Your task to perform on an android device: View the shopping cart on target.com. Add bose quietcomfort 35 to the cart on target.com, then select checkout. Image 0: 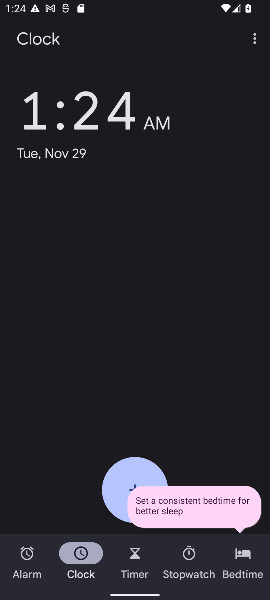
Step 0: press home button
Your task to perform on an android device: View the shopping cart on target.com. Add bose quietcomfort 35 to the cart on target.com, then select checkout. Image 1: 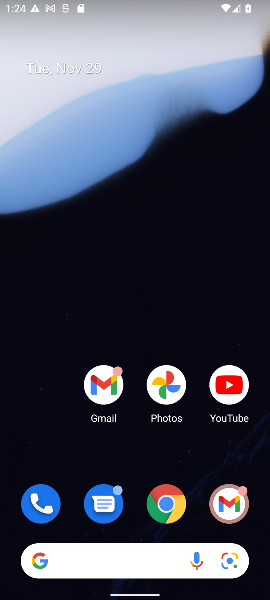
Step 1: click (167, 510)
Your task to perform on an android device: View the shopping cart on target.com. Add bose quietcomfort 35 to the cart on target.com, then select checkout. Image 2: 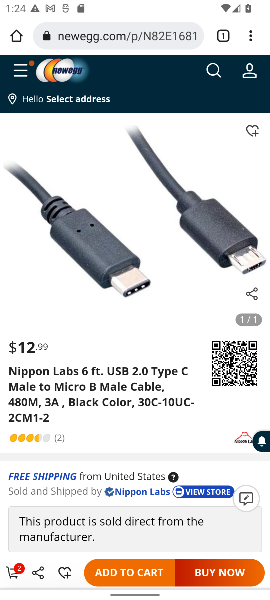
Step 2: click (103, 39)
Your task to perform on an android device: View the shopping cart on target.com. Add bose quietcomfort 35 to the cart on target.com, then select checkout. Image 3: 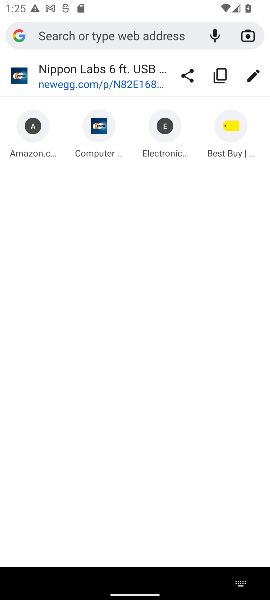
Step 3: type "target.com"
Your task to perform on an android device: View the shopping cart on target.com. Add bose quietcomfort 35 to the cart on target.com, then select checkout. Image 4: 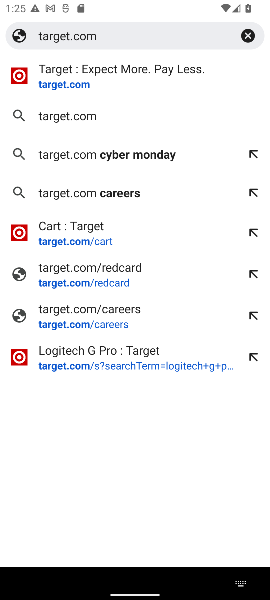
Step 4: click (62, 87)
Your task to perform on an android device: View the shopping cart on target.com. Add bose quietcomfort 35 to the cart on target.com, then select checkout. Image 5: 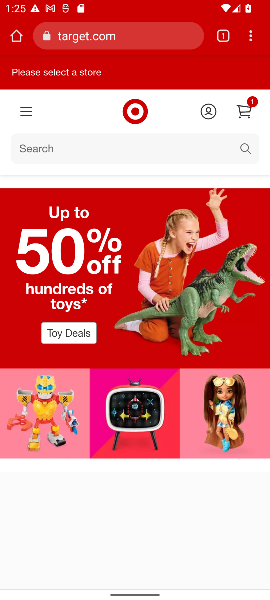
Step 5: click (245, 112)
Your task to perform on an android device: View the shopping cart on target.com. Add bose quietcomfort 35 to the cart on target.com, then select checkout. Image 6: 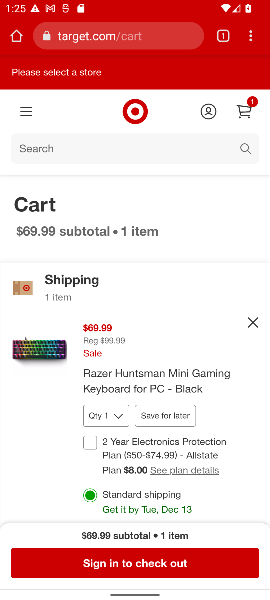
Step 6: click (49, 150)
Your task to perform on an android device: View the shopping cart on target.com. Add bose quietcomfort 35 to the cart on target.com, then select checkout. Image 7: 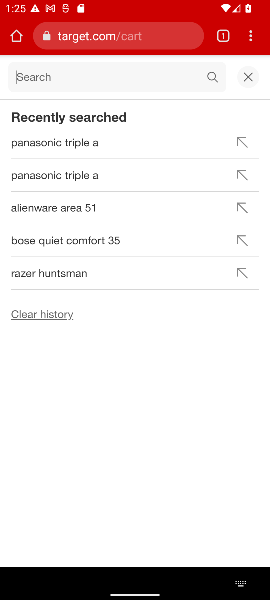
Step 7: type "bose quietcomfort 35"
Your task to perform on an android device: View the shopping cart on target.com. Add bose quietcomfort 35 to the cart on target.com, then select checkout. Image 8: 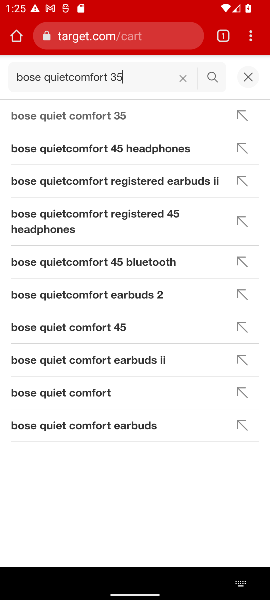
Step 8: click (49, 116)
Your task to perform on an android device: View the shopping cart on target.com. Add bose quietcomfort 35 to the cart on target.com, then select checkout. Image 9: 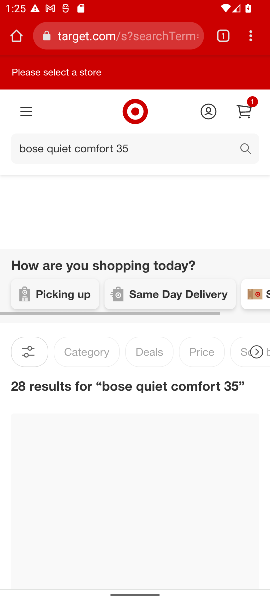
Step 9: task complete